Your task to perform on an android device: Open notification settings Image 0: 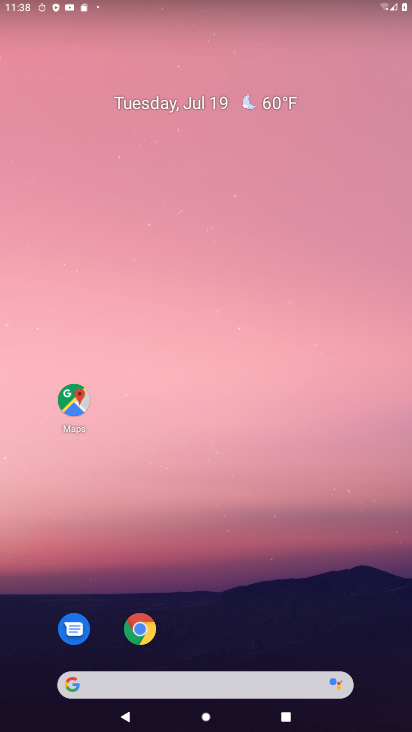
Step 0: drag from (310, 623) to (310, 142)
Your task to perform on an android device: Open notification settings Image 1: 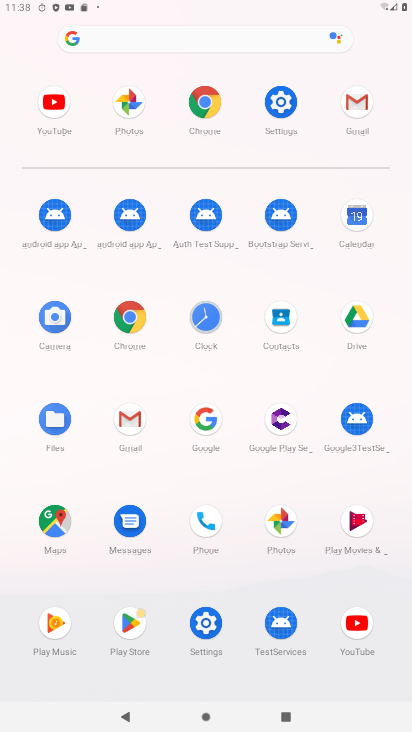
Step 1: click (282, 117)
Your task to perform on an android device: Open notification settings Image 2: 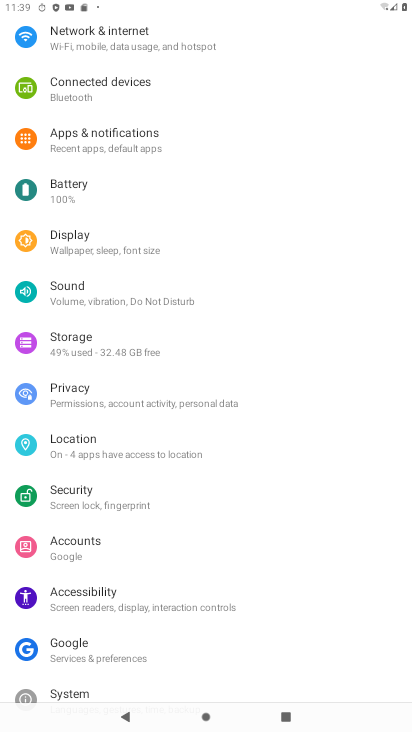
Step 2: click (170, 129)
Your task to perform on an android device: Open notification settings Image 3: 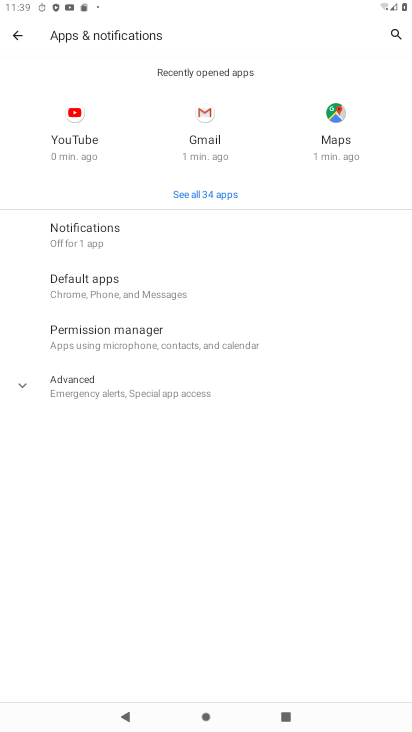
Step 3: click (85, 239)
Your task to perform on an android device: Open notification settings Image 4: 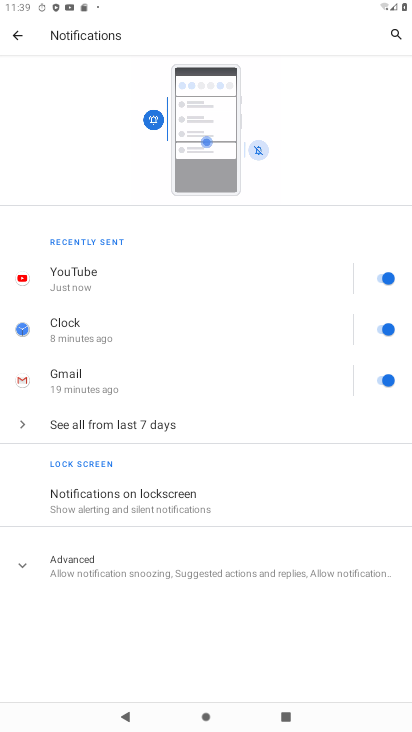
Step 4: task complete